Your task to perform on an android device: When is my next appointment? Image 0: 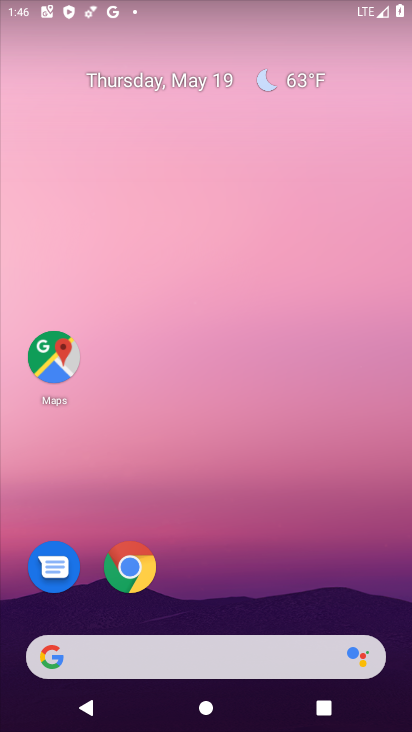
Step 0: drag from (292, 530) to (265, 11)
Your task to perform on an android device: When is my next appointment? Image 1: 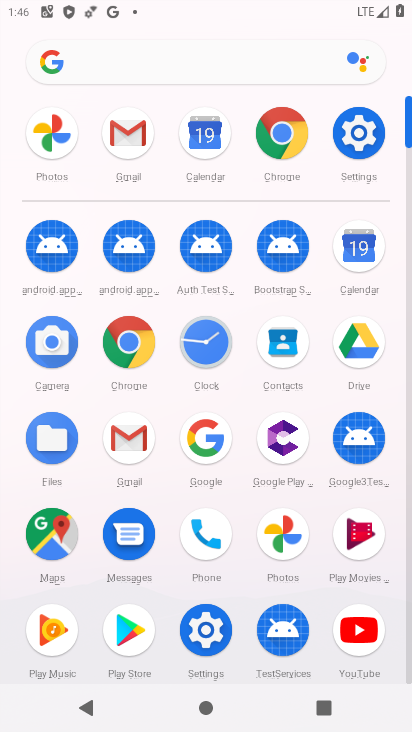
Step 1: click (356, 251)
Your task to perform on an android device: When is my next appointment? Image 2: 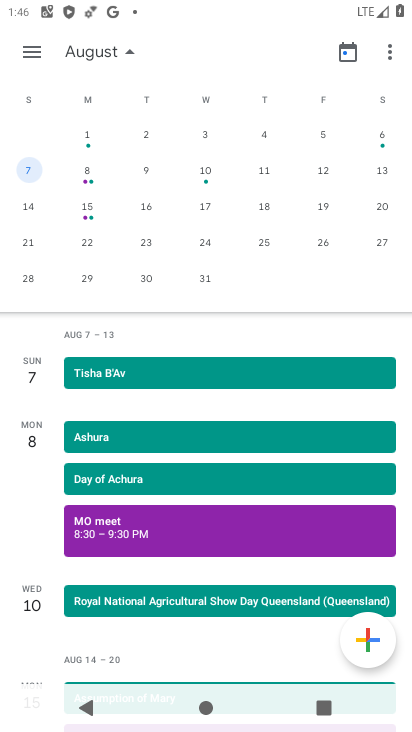
Step 2: click (87, 175)
Your task to perform on an android device: When is my next appointment? Image 3: 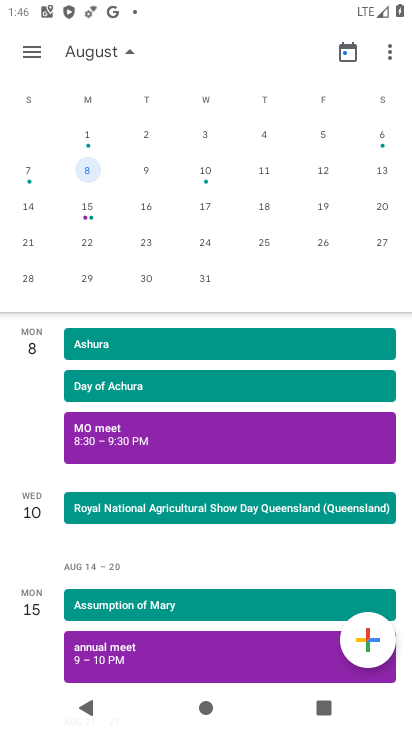
Step 3: task complete